Your task to perform on an android device: Go to Google maps Image 0: 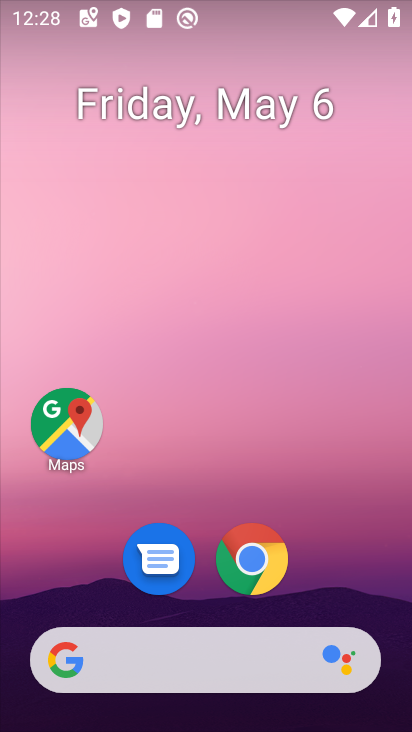
Step 0: drag from (316, 590) to (335, 72)
Your task to perform on an android device: Go to Google maps Image 1: 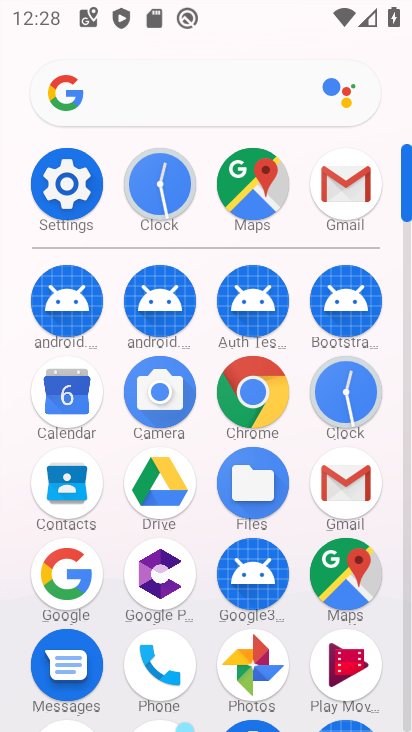
Step 1: click (342, 571)
Your task to perform on an android device: Go to Google maps Image 2: 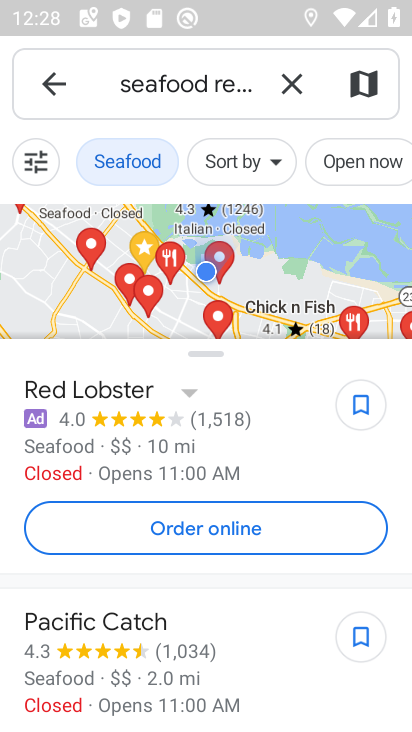
Step 2: click (58, 83)
Your task to perform on an android device: Go to Google maps Image 3: 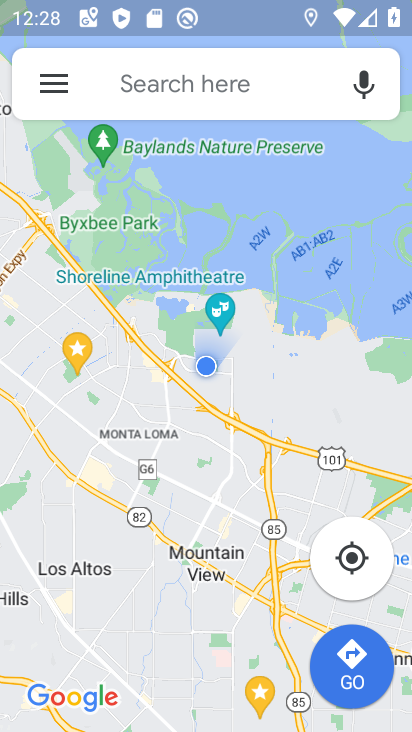
Step 3: task complete